Your task to perform on an android device: turn off sleep mode Image 0: 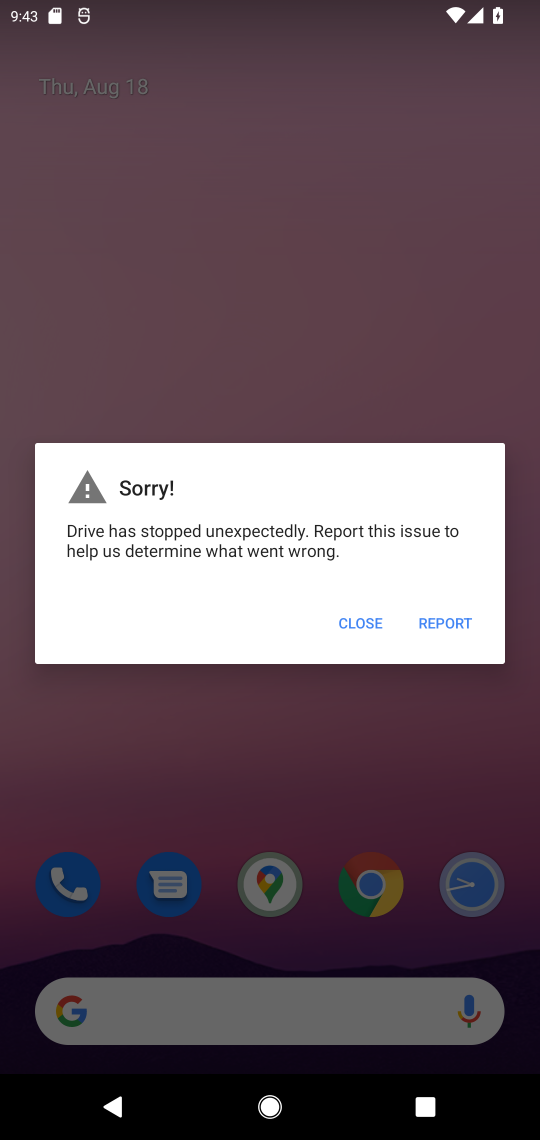
Step 0: click (354, 619)
Your task to perform on an android device: turn off sleep mode Image 1: 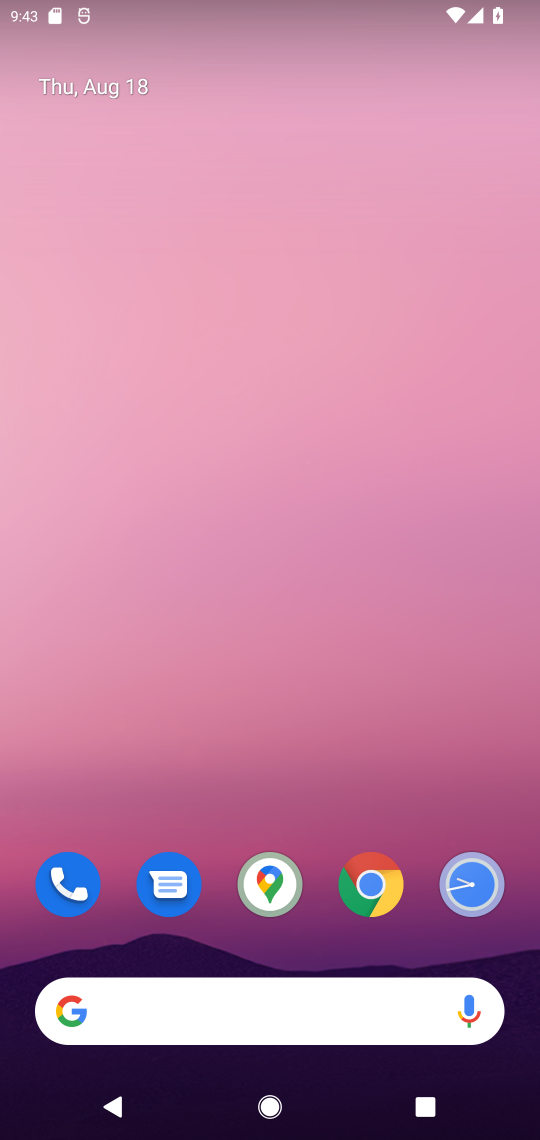
Step 1: drag from (205, 962) to (193, 188)
Your task to perform on an android device: turn off sleep mode Image 2: 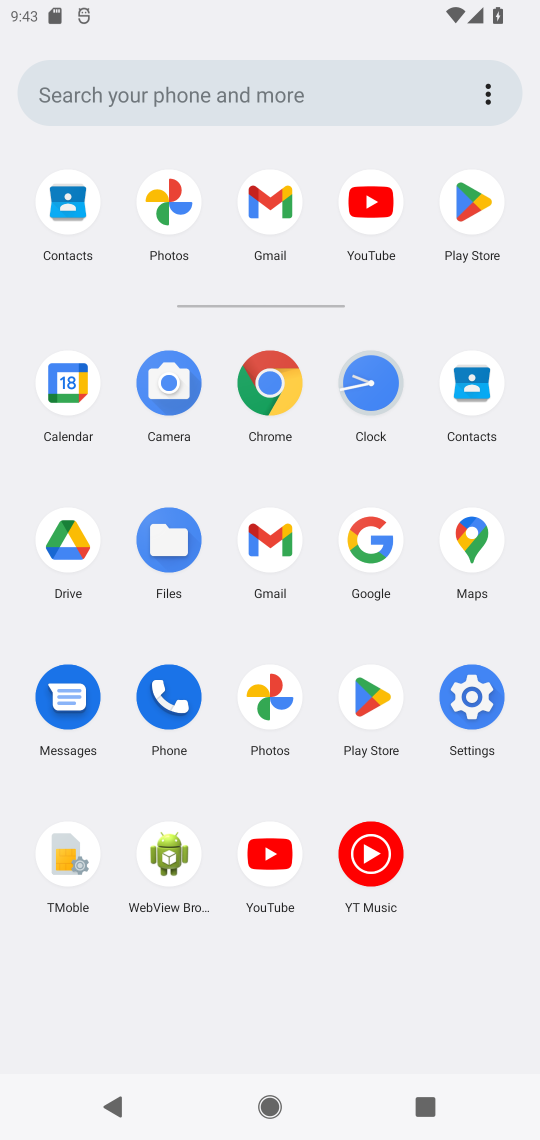
Step 2: click (466, 685)
Your task to perform on an android device: turn off sleep mode Image 3: 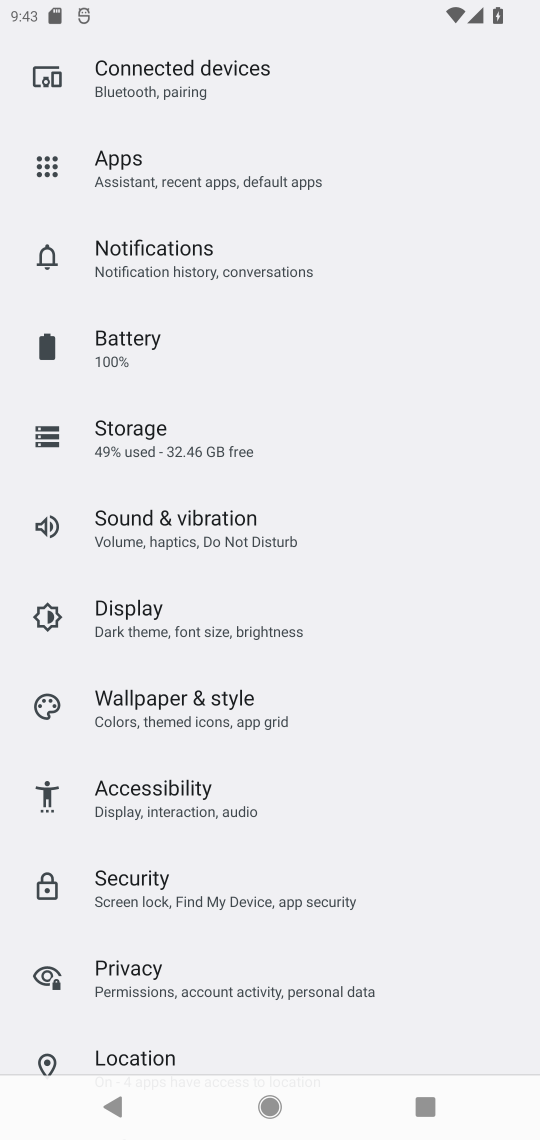
Step 3: task complete